Your task to perform on an android device: see sites visited before in the chrome app Image 0: 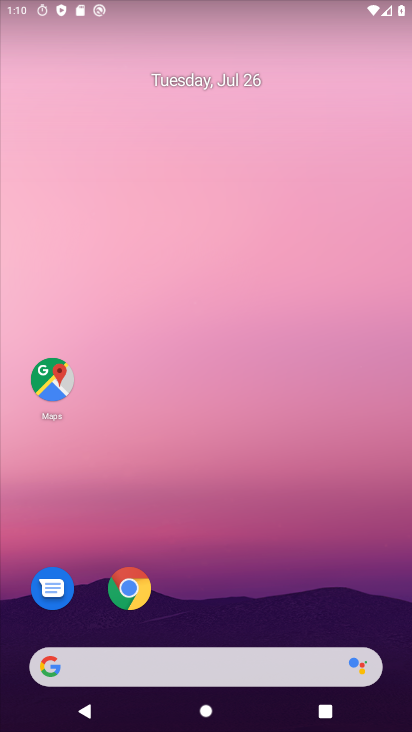
Step 0: click (130, 592)
Your task to perform on an android device: see sites visited before in the chrome app Image 1: 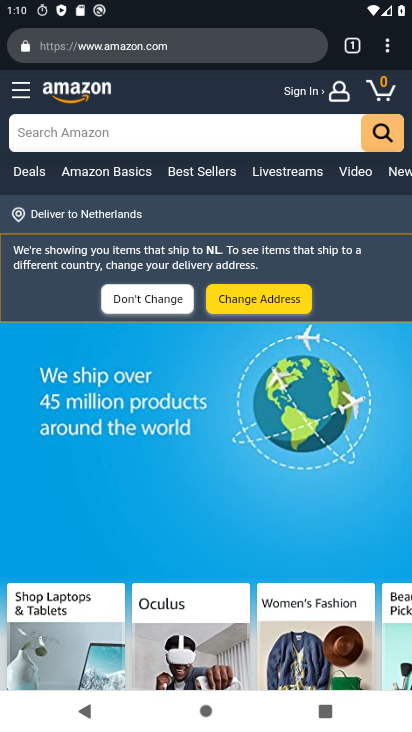
Step 1: click (388, 54)
Your task to perform on an android device: see sites visited before in the chrome app Image 2: 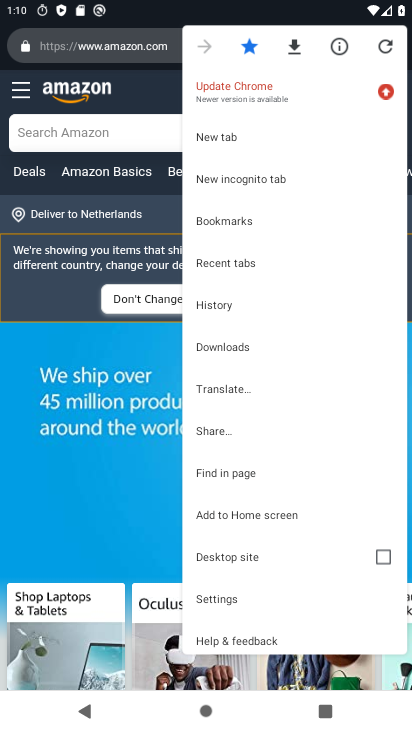
Step 2: click (256, 304)
Your task to perform on an android device: see sites visited before in the chrome app Image 3: 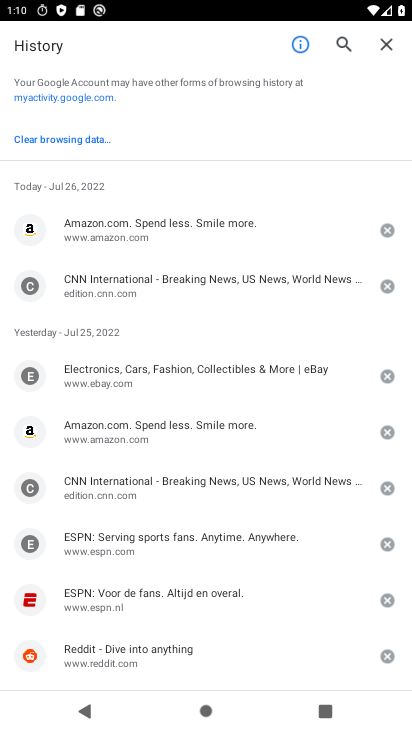
Step 3: task complete